Your task to perform on an android device: read, delete, or share a saved page in the chrome app Image 0: 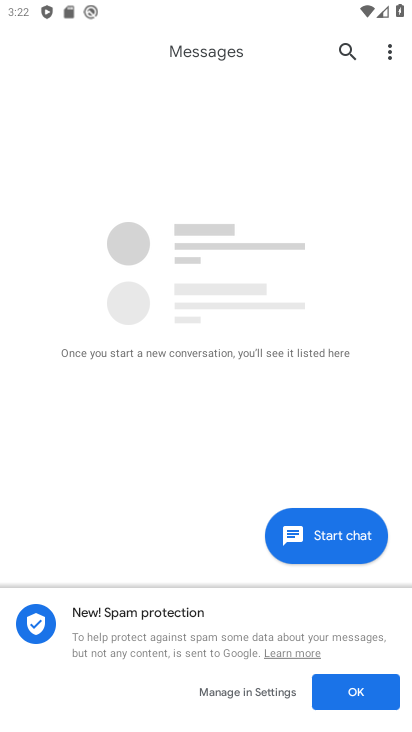
Step 0: press back button
Your task to perform on an android device: read, delete, or share a saved page in the chrome app Image 1: 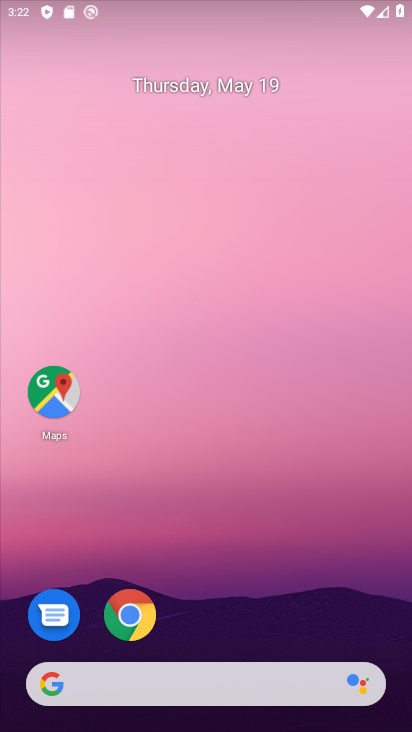
Step 1: drag from (372, 667) to (96, 83)
Your task to perform on an android device: read, delete, or share a saved page in the chrome app Image 2: 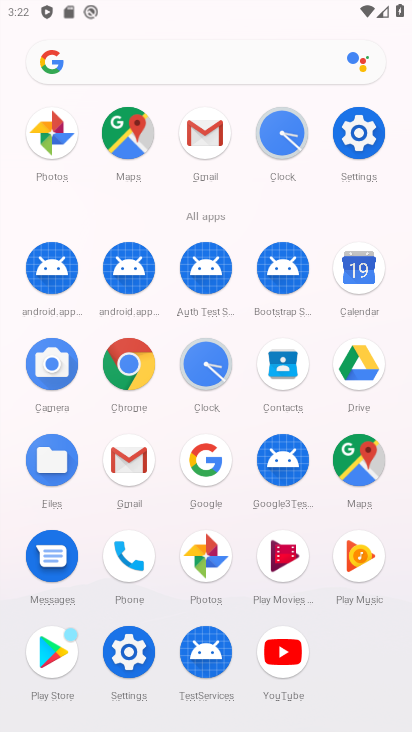
Step 2: click (122, 361)
Your task to perform on an android device: read, delete, or share a saved page in the chrome app Image 3: 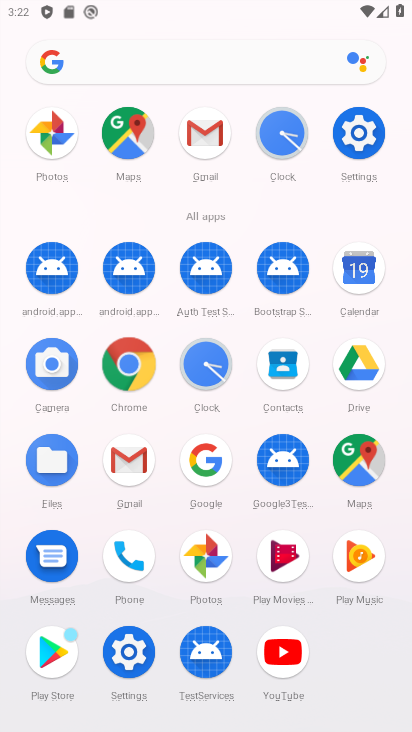
Step 3: click (122, 361)
Your task to perform on an android device: read, delete, or share a saved page in the chrome app Image 4: 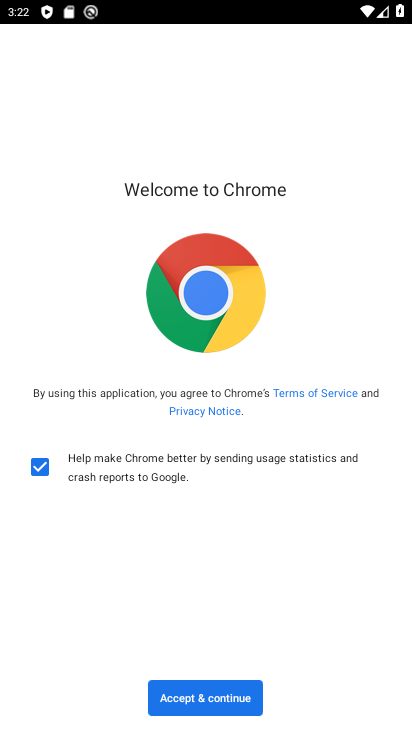
Step 4: click (197, 692)
Your task to perform on an android device: read, delete, or share a saved page in the chrome app Image 5: 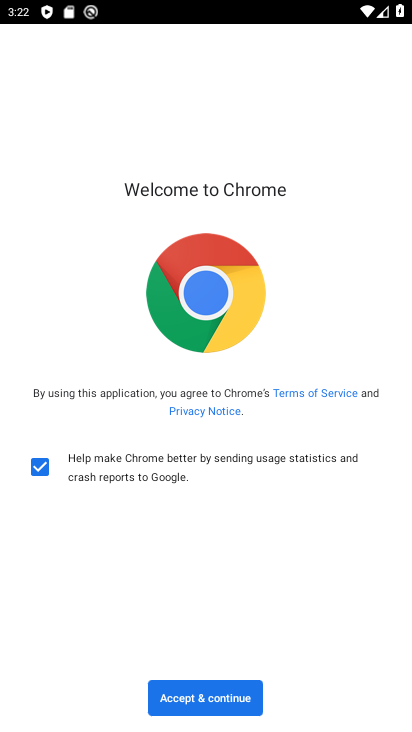
Step 5: click (198, 692)
Your task to perform on an android device: read, delete, or share a saved page in the chrome app Image 6: 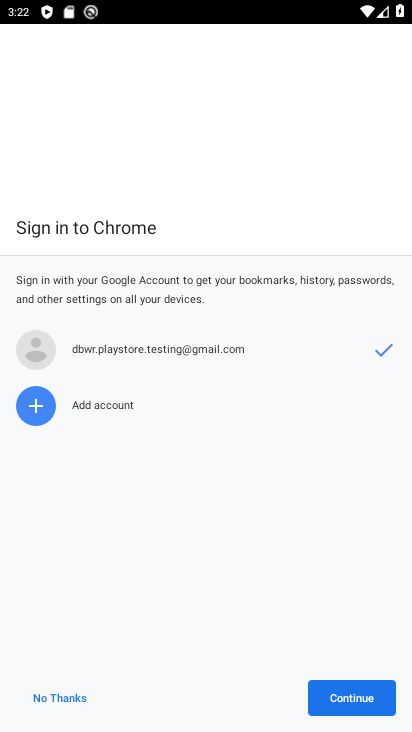
Step 6: click (211, 693)
Your task to perform on an android device: read, delete, or share a saved page in the chrome app Image 7: 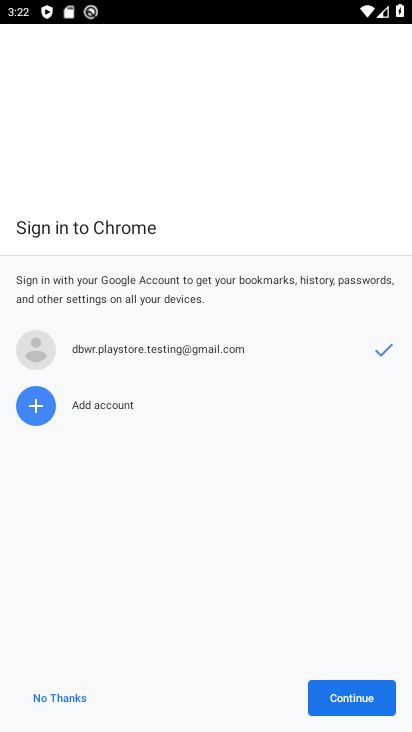
Step 7: click (212, 684)
Your task to perform on an android device: read, delete, or share a saved page in the chrome app Image 8: 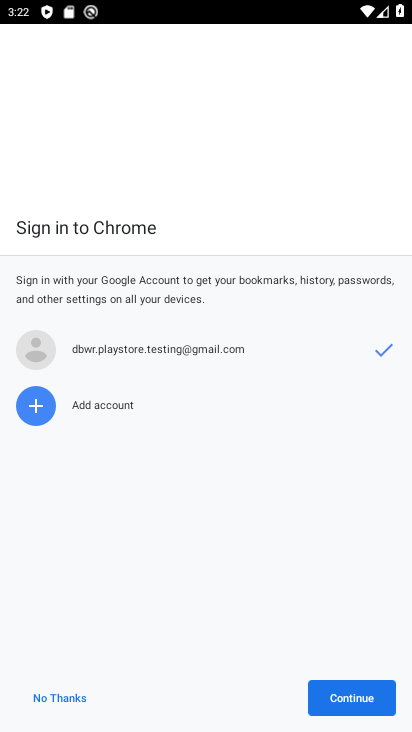
Step 8: click (380, 694)
Your task to perform on an android device: read, delete, or share a saved page in the chrome app Image 9: 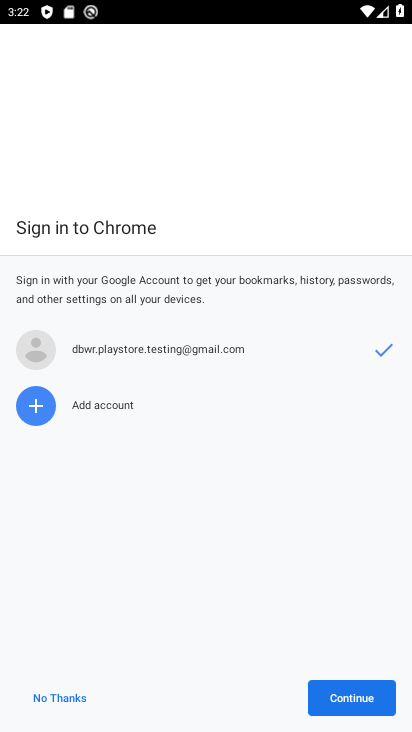
Step 9: click (380, 694)
Your task to perform on an android device: read, delete, or share a saved page in the chrome app Image 10: 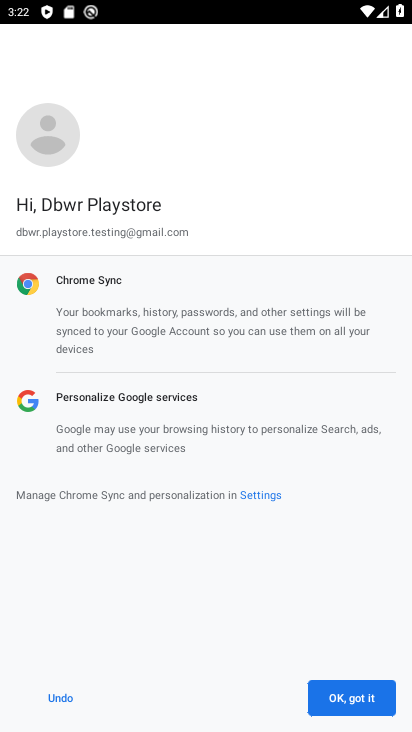
Step 10: click (363, 702)
Your task to perform on an android device: read, delete, or share a saved page in the chrome app Image 11: 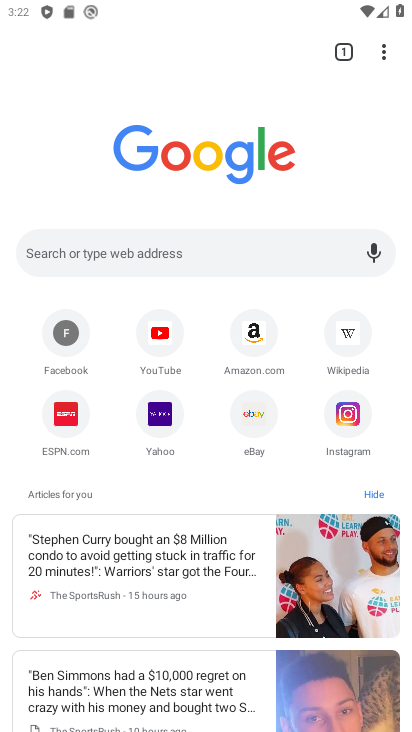
Step 11: drag from (383, 53) to (186, 338)
Your task to perform on an android device: read, delete, or share a saved page in the chrome app Image 12: 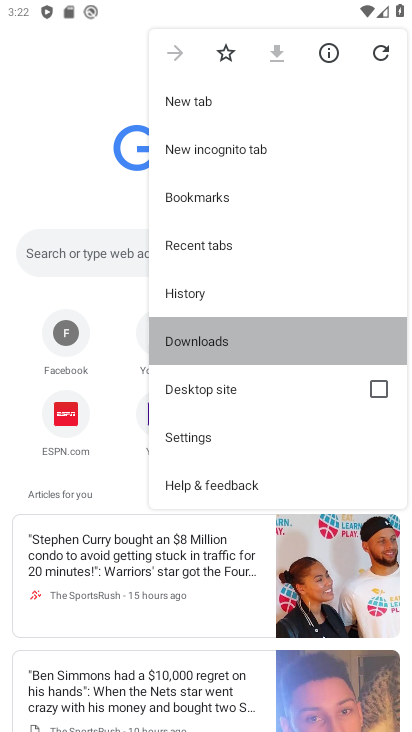
Step 12: click (191, 338)
Your task to perform on an android device: read, delete, or share a saved page in the chrome app Image 13: 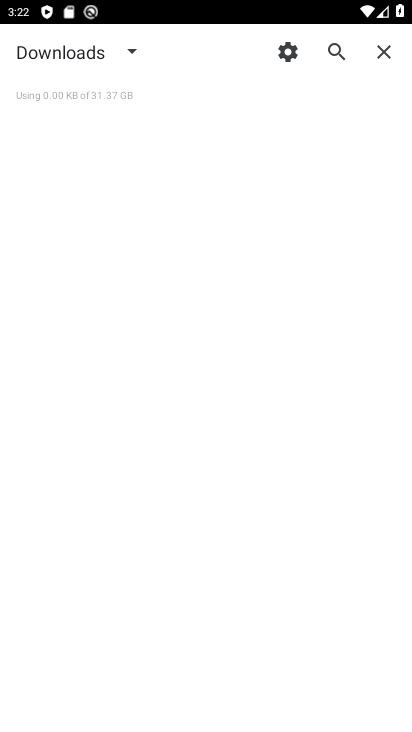
Step 13: task complete